Your task to perform on an android device: Open location settings Image 0: 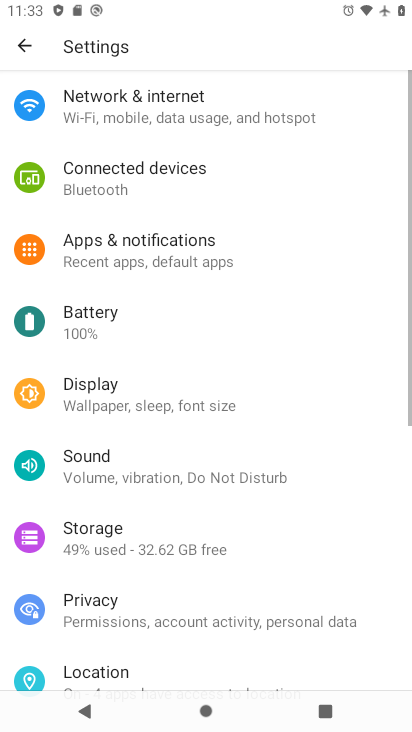
Step 0: press home button
Your task to perform on an android device: Open location settings Image 1: 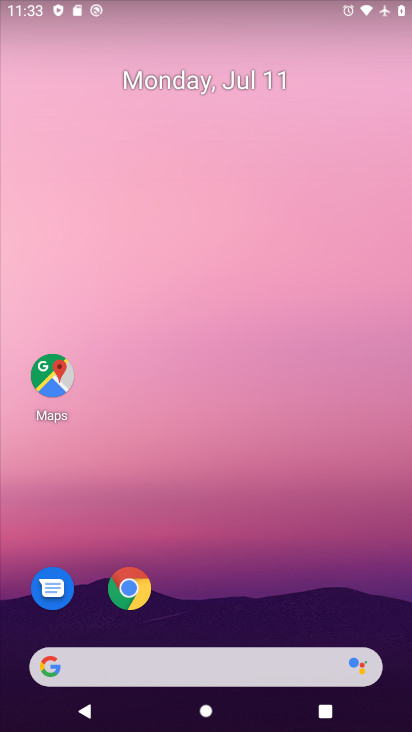
Step 1: drag from (176, 665) to (306, 90)
Your task to perform on an android device: Open location settings Image 2: 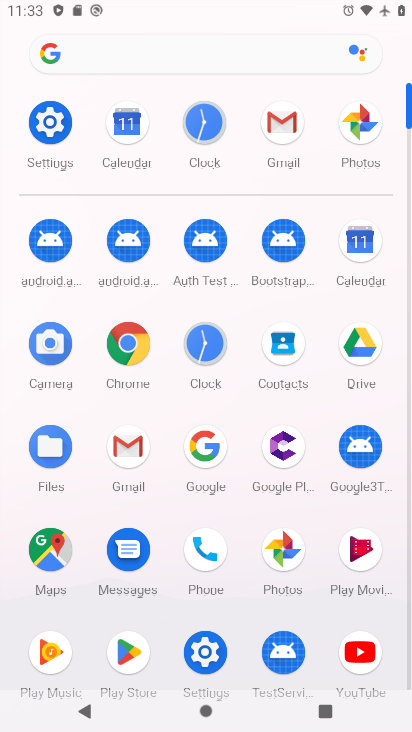
Step 2: click (49, 125)
Your task to perform on an android device: Open location settings Image 3: 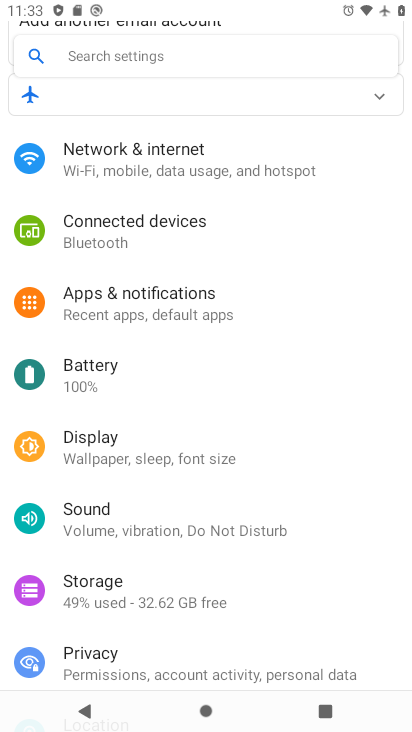
Step 3: drag from (172, 576) to (277, 158)
Your task to perform on an android device: Open location settings Image 4: 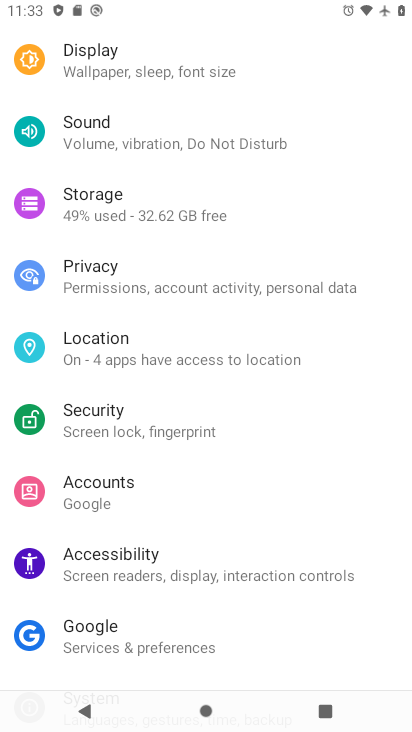
Step 4: click (169, 355)
Your task to perform on an android device: Open location settings Image 5: 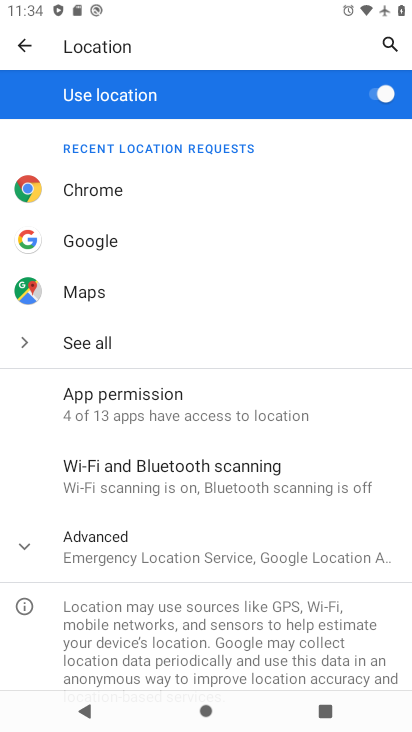
Step 5: task complete